Your task to perform on an android device: turn off improve location accuracy Image 0: 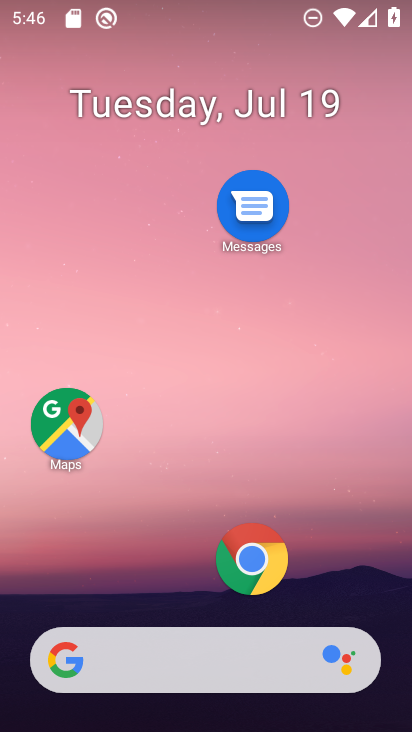
Step 0: drag from (137, 601) to (287, 7)
Your task to perform on an android device: turn off improve location accuracy Image 1: 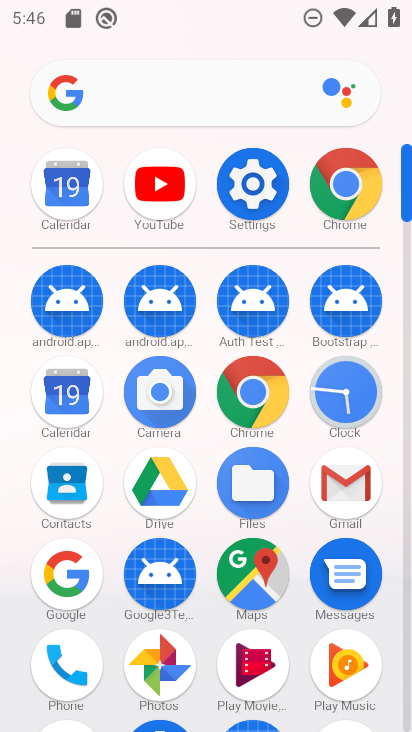
Step 1: click (267, 177)
Your task to perform on an android device: turn off improve location accuracy Image 2: 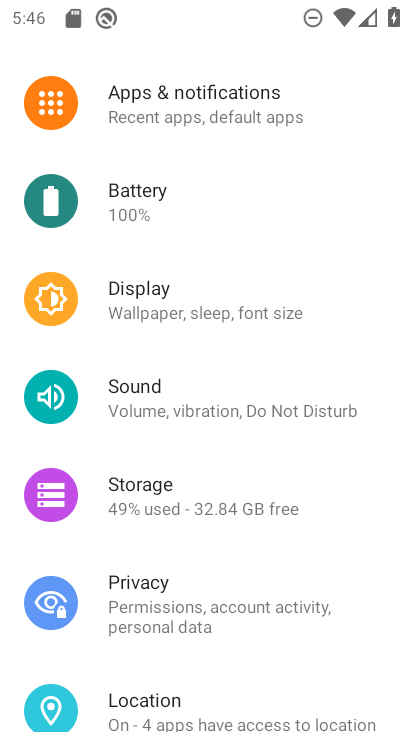
Step 2: click (148, 709)
Your task to perform on an android device: turn off improve location accuracy Image 3: 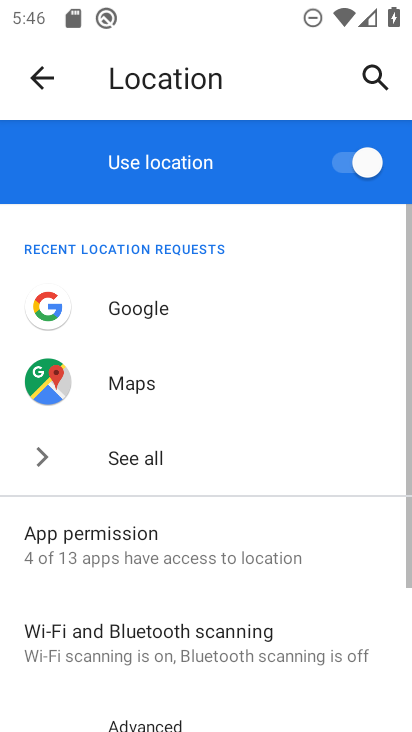
Step 3: drag from (198, 623) to (325, 59)
Your task to perform on an android device: turn off improve location accuracy Image 4: 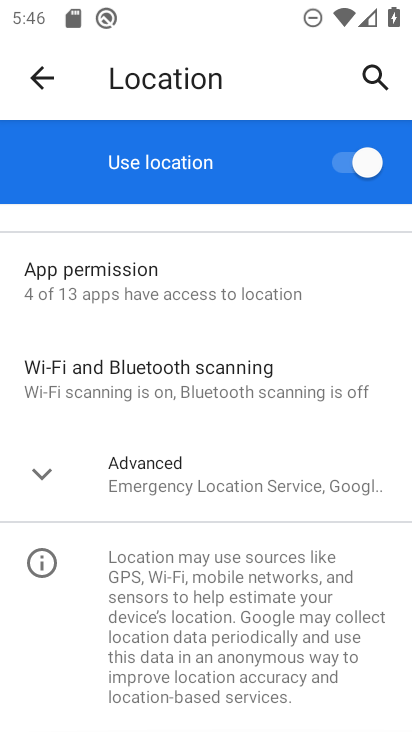
Step 4: click (159, 474)
Your task to perform on an android device: turn off improve location accuracy Image 5: 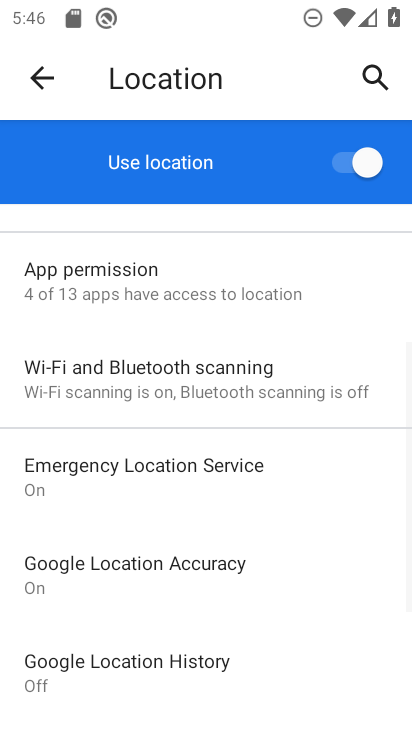
Step 5: click (218, 573)
Your task to perform on an android device: turn off improve location accuracy Image 6: 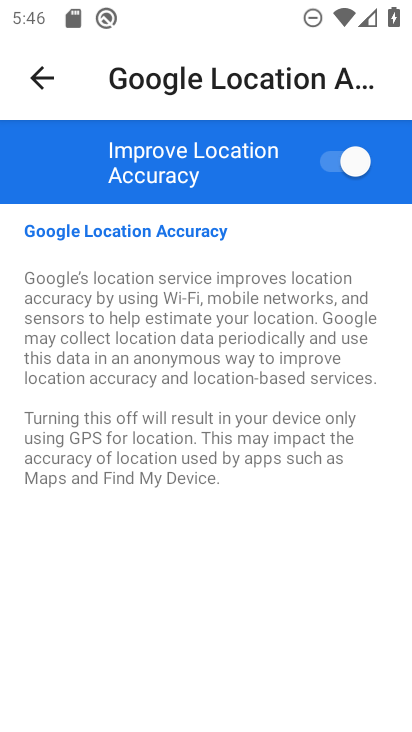
Step 6: click (341, 161)
Your task to perform on an android device: turn off improve location accuracy Image 7: 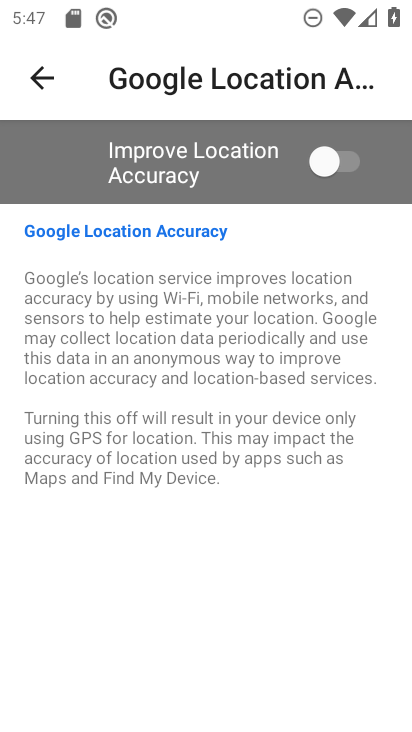
Step 7: task complete